Your task to perform on an android device: search for starred emails in the gmail app Image 0: 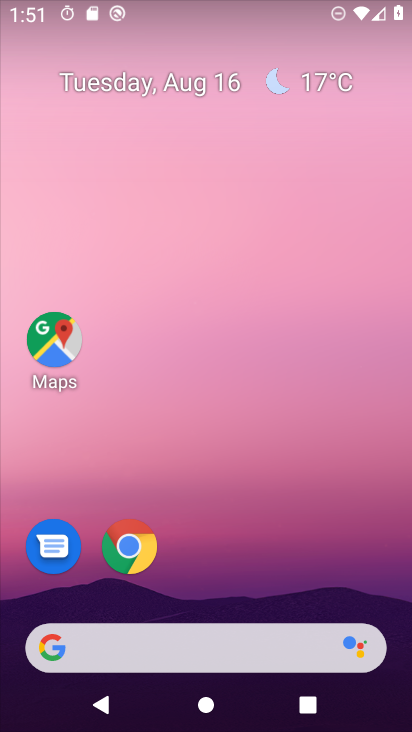
Step 0: click (206, 47)
Your task to perform on an android device: search for starred emails in the gmail app Image 1: 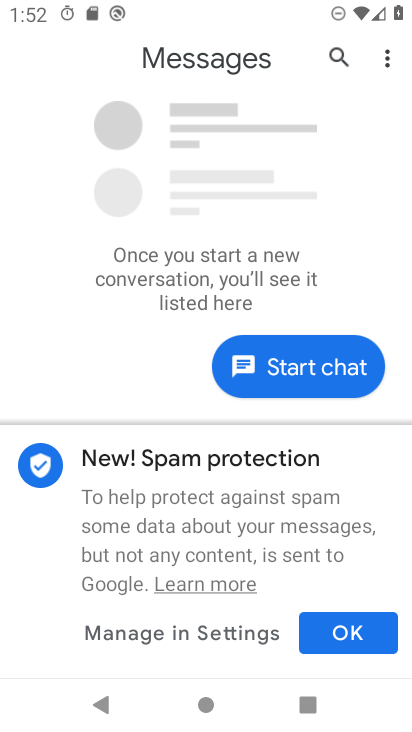
Step 1: press home button
Your task to perform on an android device: search for starred emails in the gmail app Image 2: 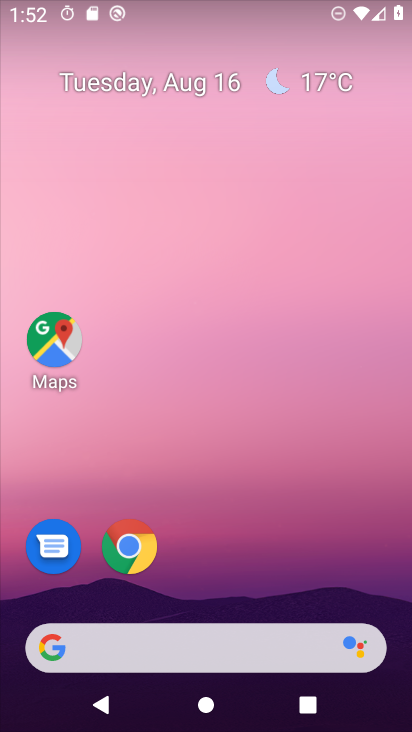
Step 2: drag from (212, 612) to (211, 46)
Your task to perform on an android device: search for starred emails in the gmail app Image 3: 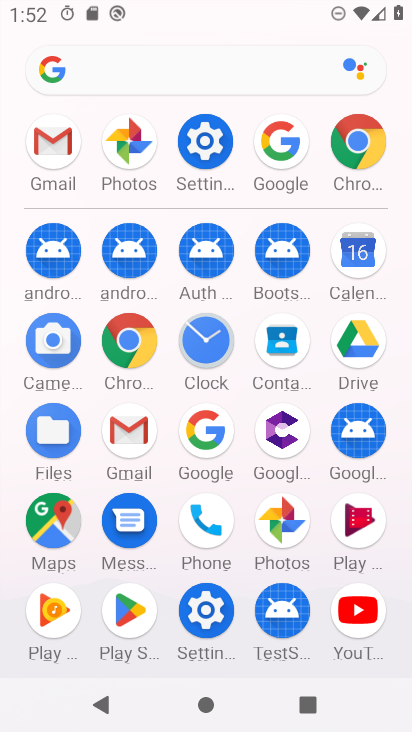
Step 3: click (133, 433)
Your task to perform on an android device: search for starred emails in the gmail app Image 4: 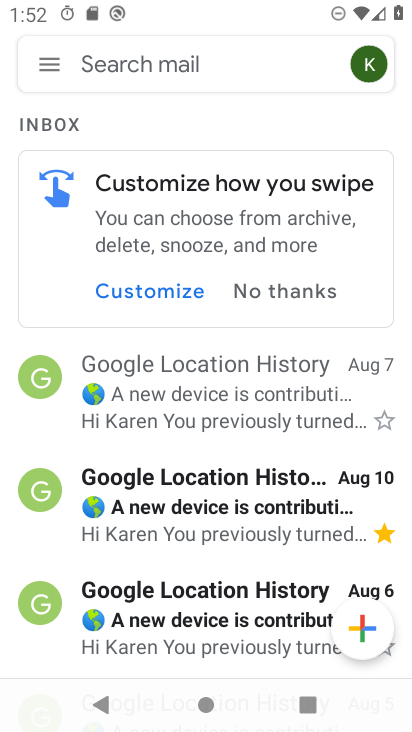
Step 4: click (49, 58)
Your task to perform on an android device: search for starred emails in the gmail app Image 5: 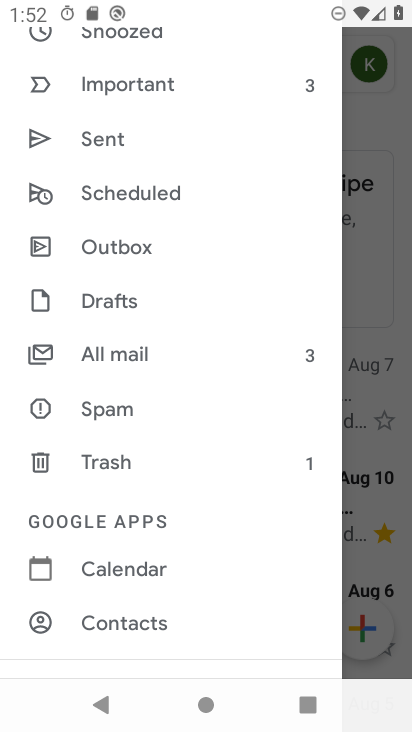
Step 5: drag from (101, 166) to (113, 341)
Your task to perform on an android device: search for starred emails in the gmail app Image 6: 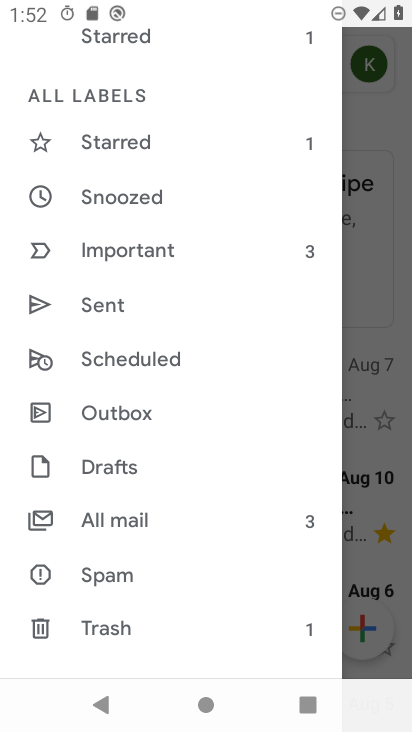
Step 6: click (125, 149)
Your task to perform on an android device: search for starred emails in the gmail app Image 7: 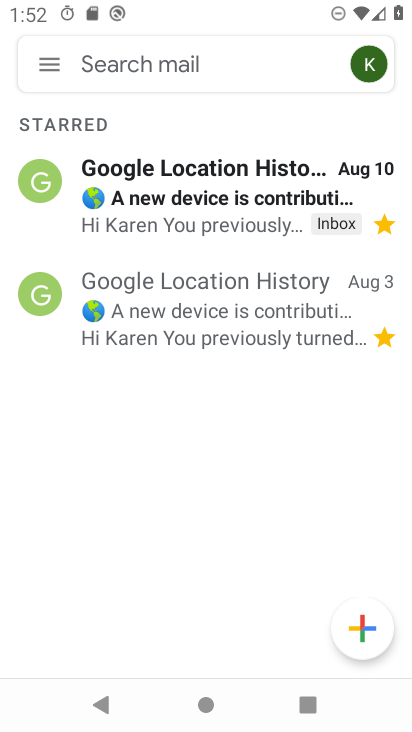
Step 7: task complete